Your task to perform on an android device: Open Chrome and go to settings Image 0: 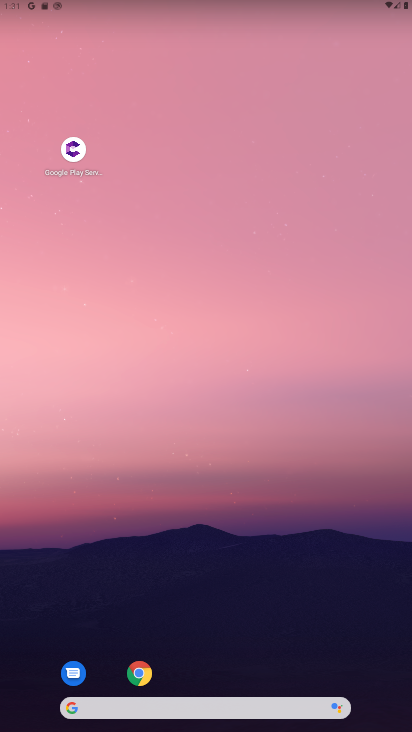
Step 0: click (212, 552)
Your task to perform on an android device: Open Chrome and go to settings Image 1: 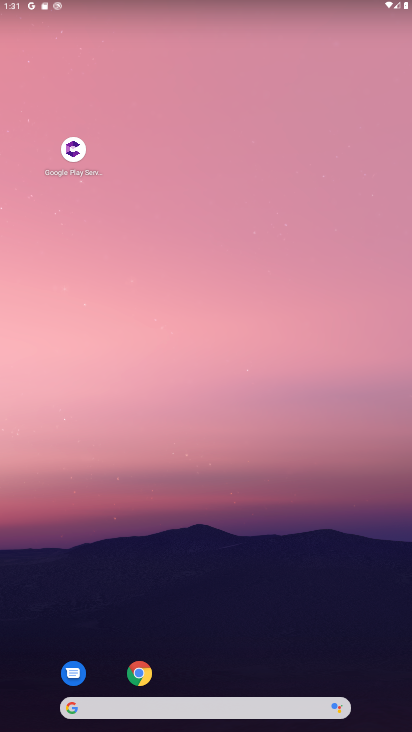
Step 1: drag from (220, 563) to (133, 70)
Your task to perform on an android device: Open Chrome and go to settings Image 2: 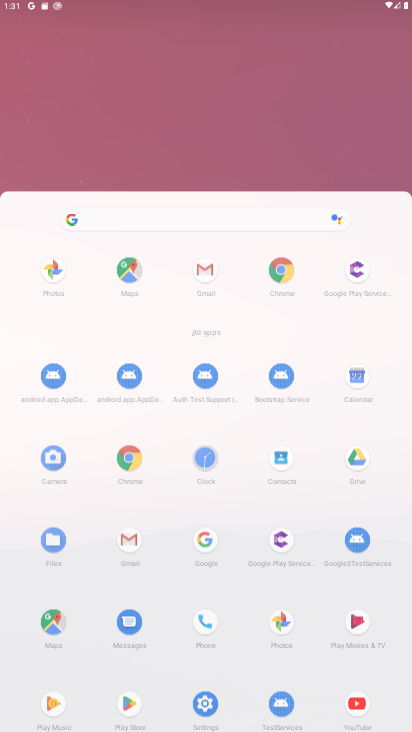
Step 2: drag from (215, 306) to (183, 72)
Your task to perform on an android device: Open Chrome and go to settings Image 3: 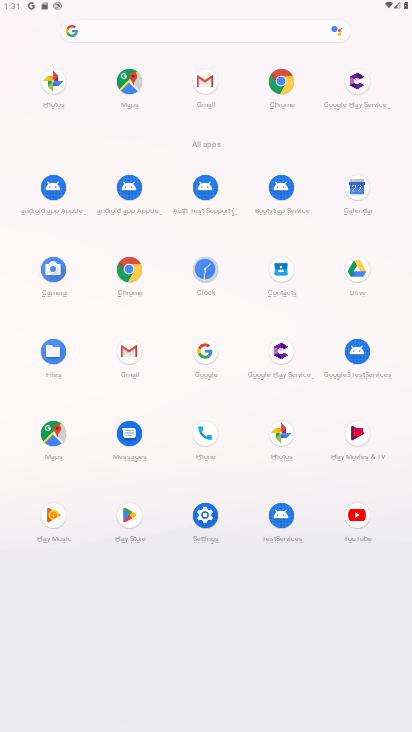
Step 3: drag from (189, 161) to (103, 98)
Your task to perform on an android device: Open Chrome and go to settings Image 4: 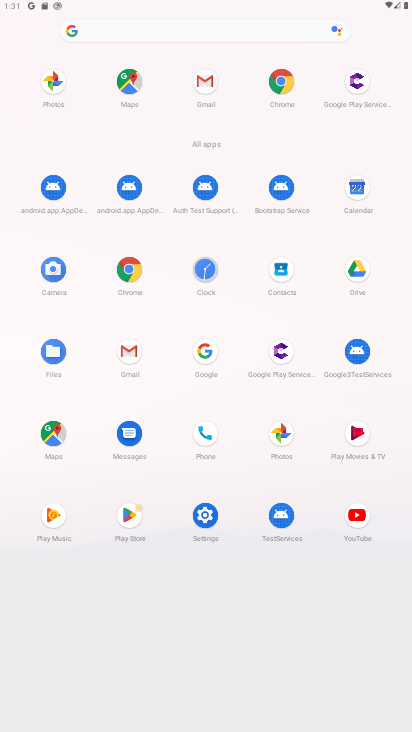
Step 4: click (208, 527)
Your task to perform on an android device: Open Chrome and go to settings Image 5: 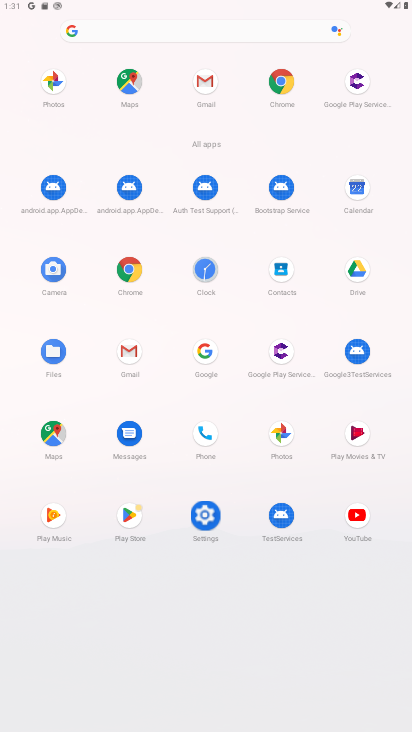
Step 5: click (208, 527)
Your task to perform on an android device: Open Chrome and go to settings Image 6: 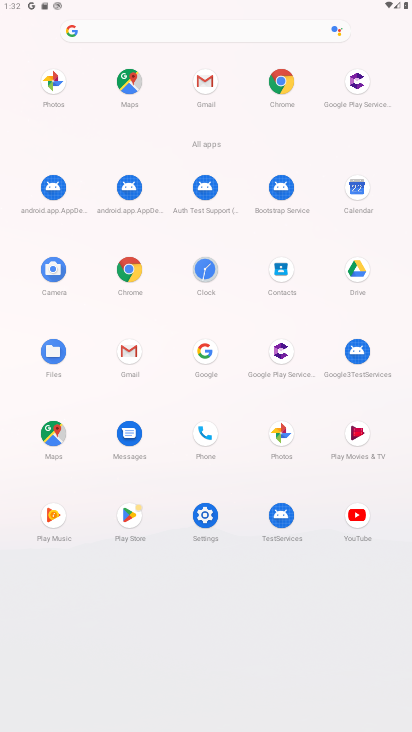
Step 6: click (285, 81)
Your task to perform on an android device: Open Chrome and go to settings Image 7: 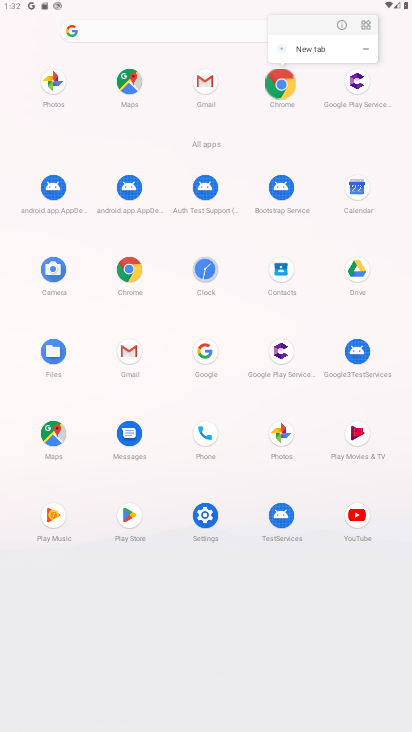
Step 7: click (277, 76)
Your task to perform on an android device: Open Chrome and go to settings Image 8: 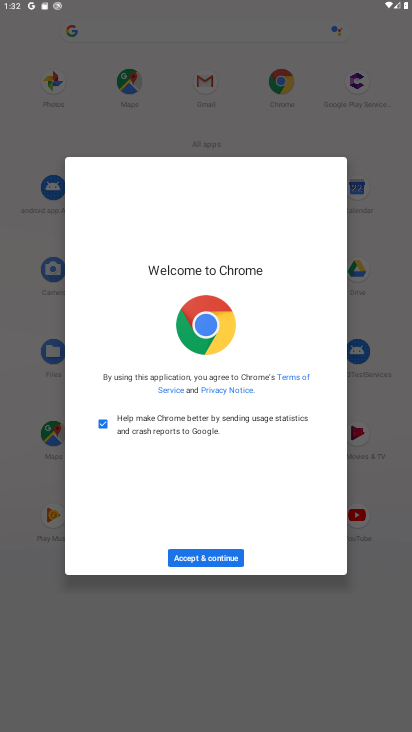
Step 8: click (203, 551)
Your task to perform on an android device: Open Chrome and go to settings Image 9: 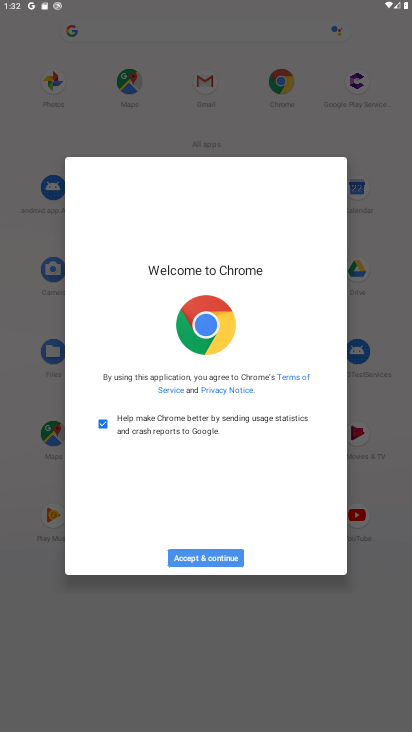
Step 9: click (210, 564)
Your task to perform on an android device: Open Chrome and go to settings Image 10: 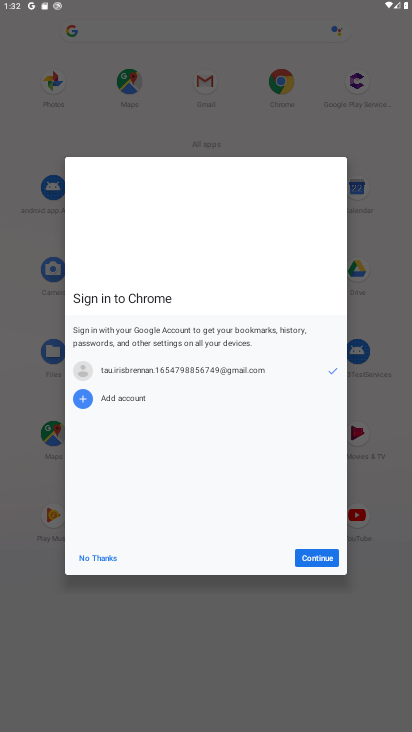
Step 10: click (100, 560)
Your task to perform on an android device: Open Chrome and go to settings Image 11: 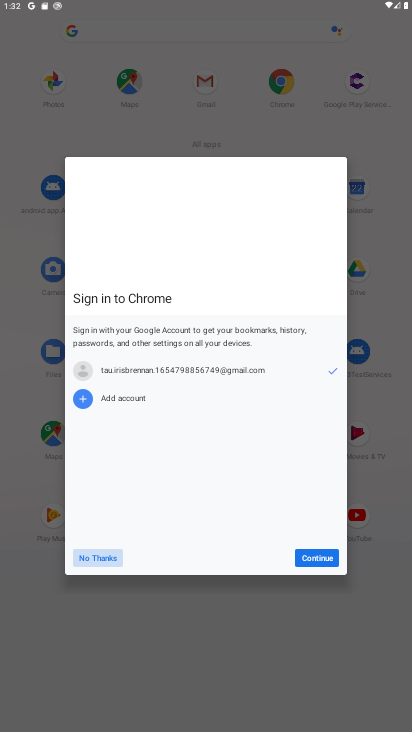
Step 11: click (100, 560)
Your task to perform on an android device: Open Chrome and go to settings Image 12: 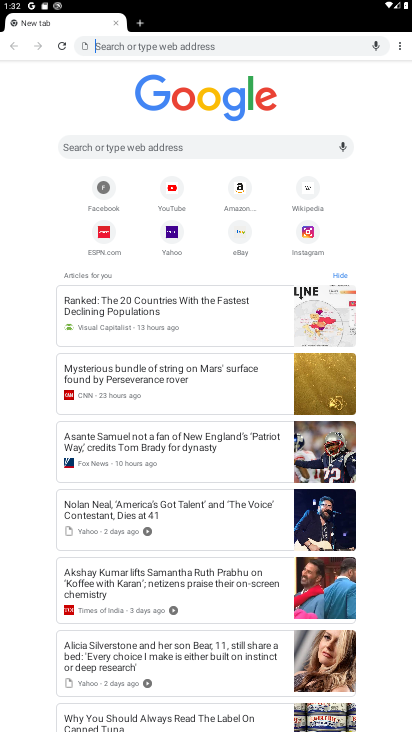
Step 12: click (400, 44)
Your task to perform on an android device: Open Chrome and go to settings Image 13: 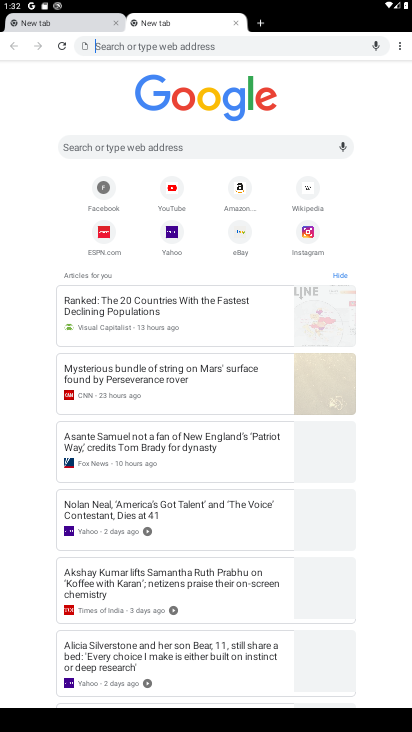
Step 13: drag from (397, 51) to (301, 204)
Your task to perform on an android device: Open Chrome and go to settings Image 14: 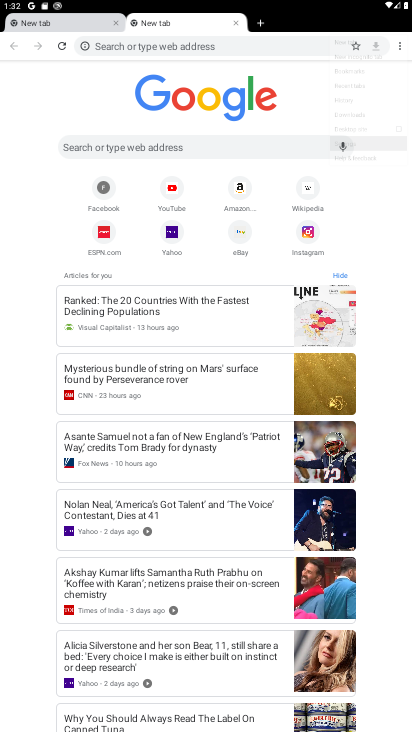
Step 14: click (302, 206)
Your task to perform on an android device: Open Chrome and go to settings Image 15: 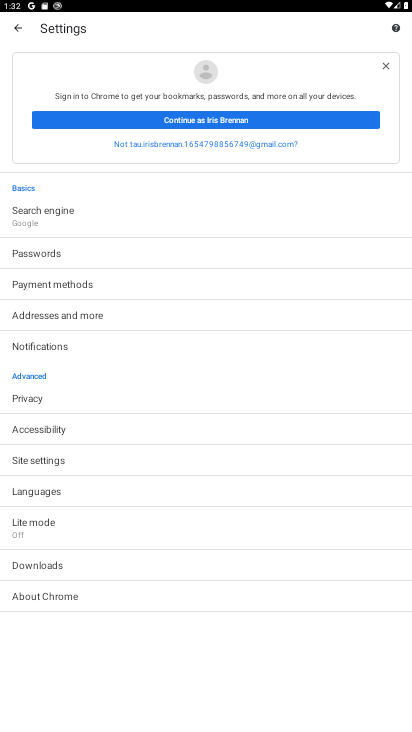
Step 15: click (387, 65)
Your task to perform on an android device: Open Chrome and go to settings Image 16: 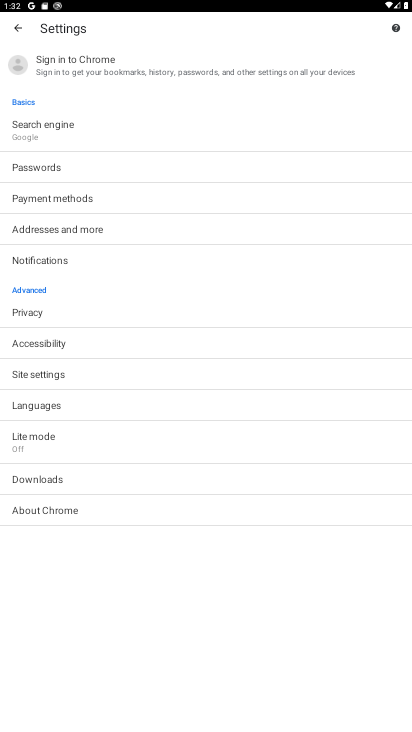
Step 16: click (27, 372)
Your task to perform on an android device: Open Chrome and go to settings Image 17: 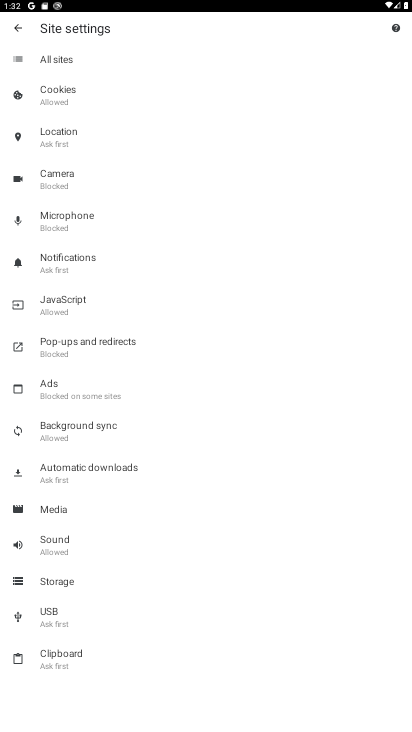
Step 17: task complete